Your task to perform on an android device: Open ESPN.com Image 0: 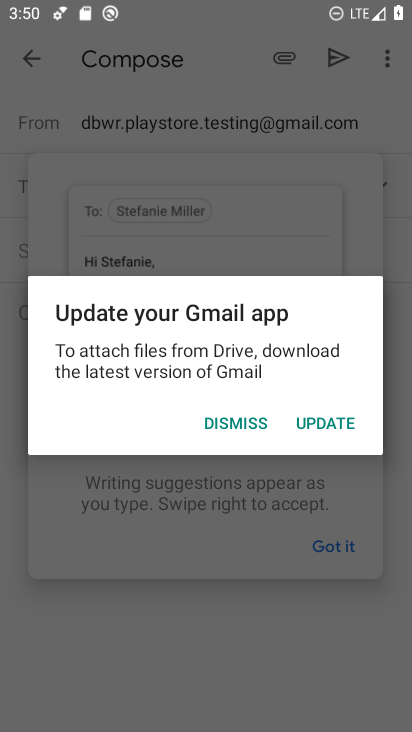
Step 0: press home button
Your task to perform on an android device: Open ESPN.com Image 1: 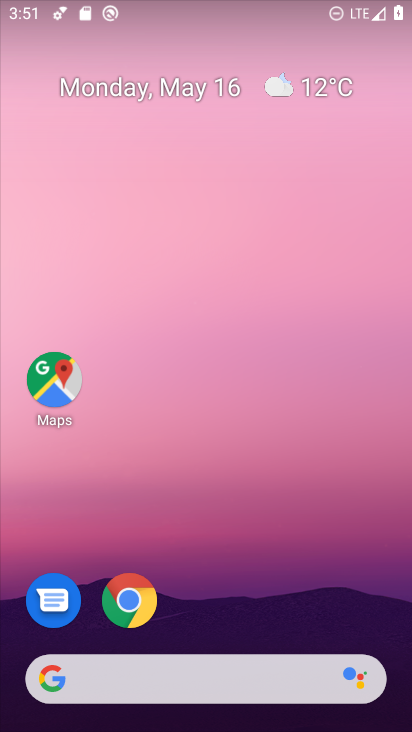
Step 1: click (128, 613)
Your task to perform on an android device: Open ESPN.com Image 2: 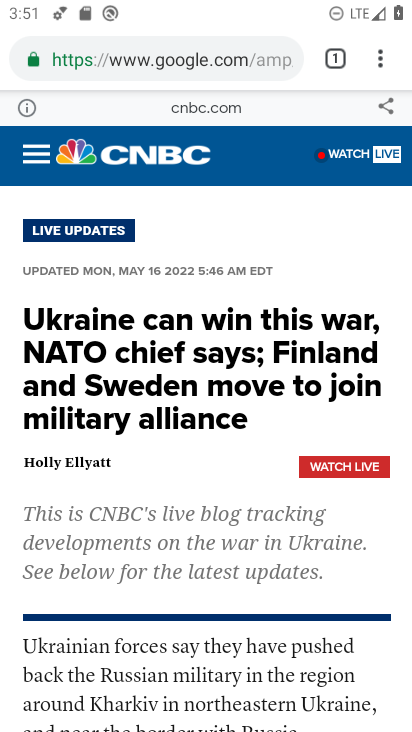
Step 2: click (232, 67)
Your task to perform on an android device: Open ESPN.com Image 3: 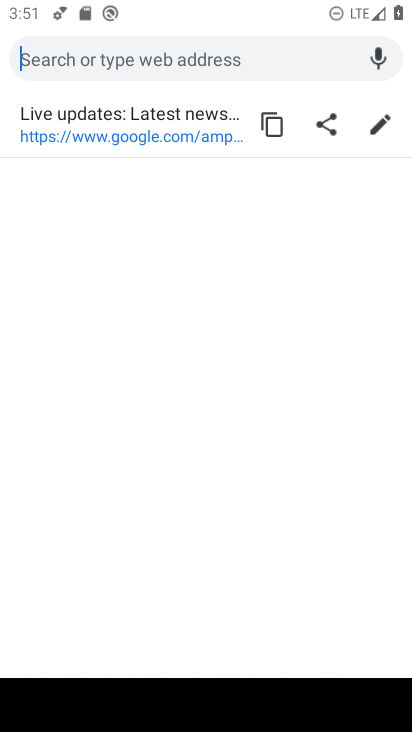
Step 3: type "espn.com"
Your task to perform on an android device: Open ESPN.com Image 4: 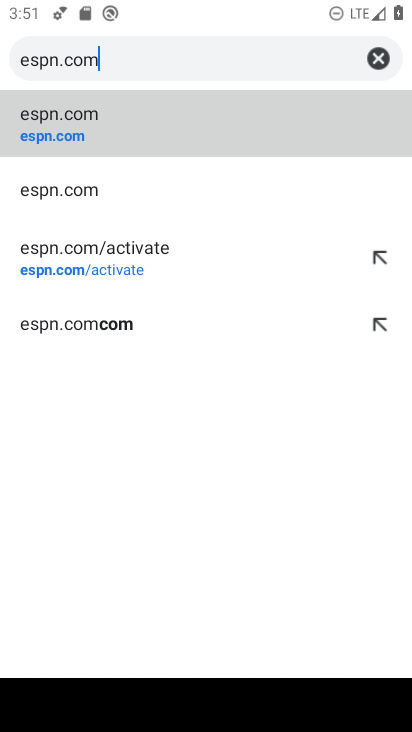
Step 4: click (64, 131)
Your task to perform on an android device: Open ESPN.com Image 5: 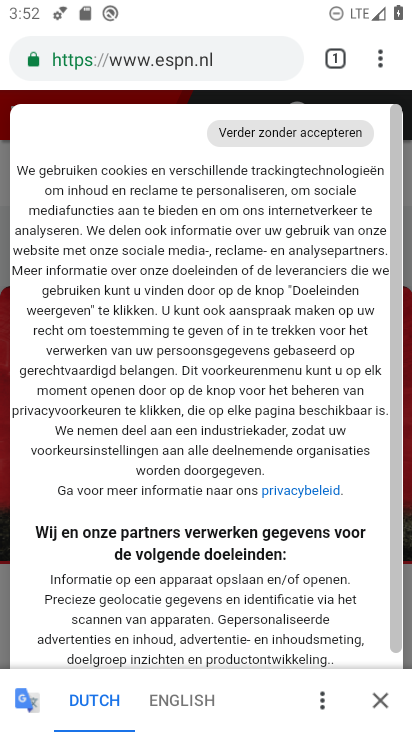
Step 5: task complete